Your task to perform on an android device: Open the web browser Image 0: 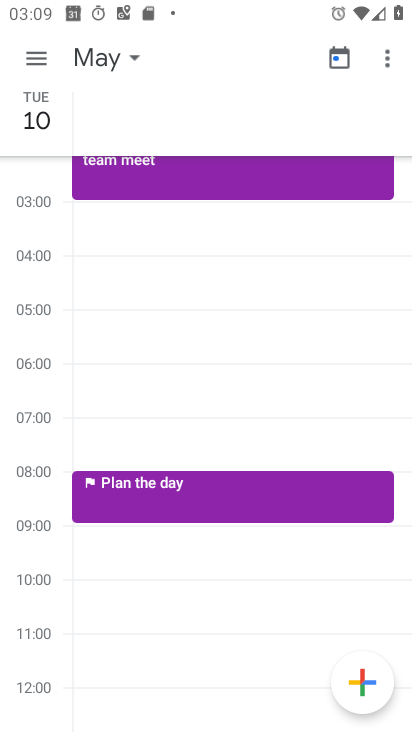
Step 0: press home button
Your task to perform on an android device: Open the web browser Image 1: 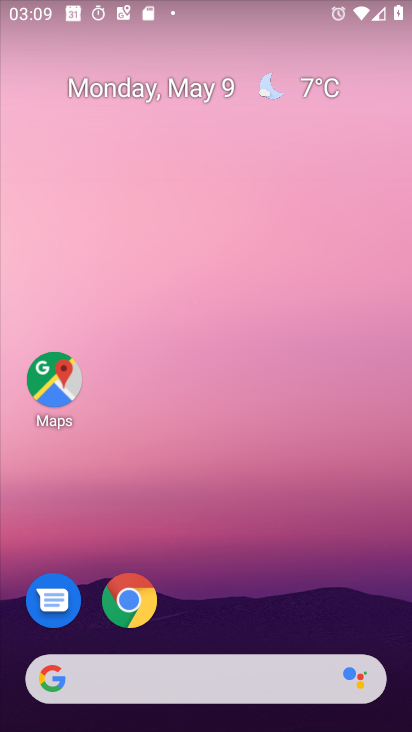
Step 1: click (143, 628)
Your task to perform on an android device: Open the web browser Image 2: 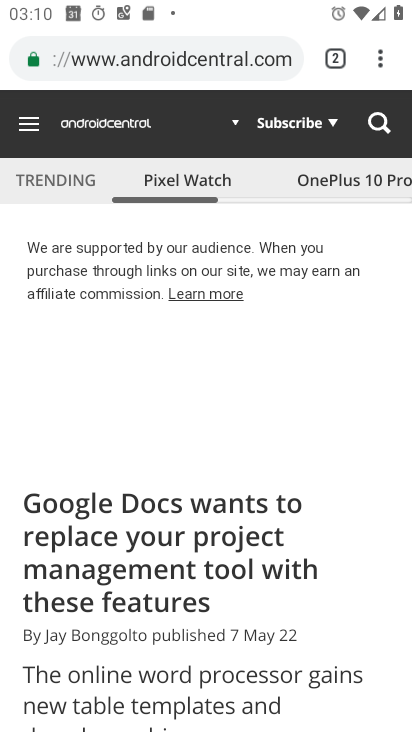
Step 2: task complete